Your task to perform on an android device: check storage Image 0: 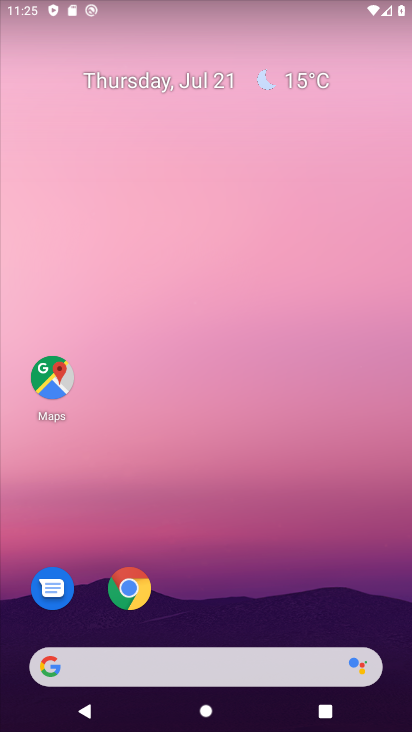
Step 0: drag from (264, 612) to (239, 173)
Your task to perform on an android device: check storage Image 1: 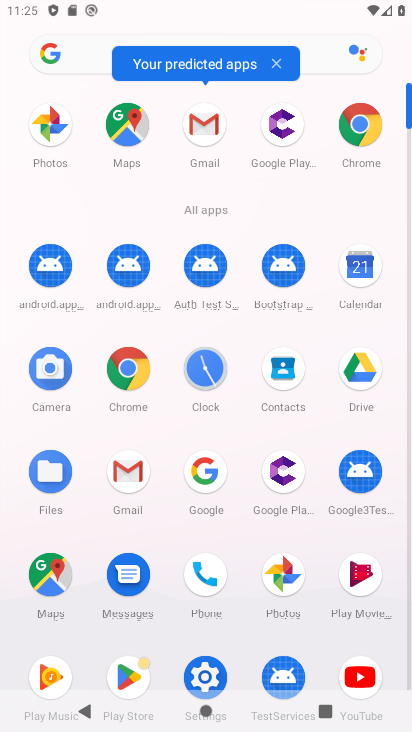
Step 1: click (200, 667)
Your task to perform on an android device: check storage Image 2: 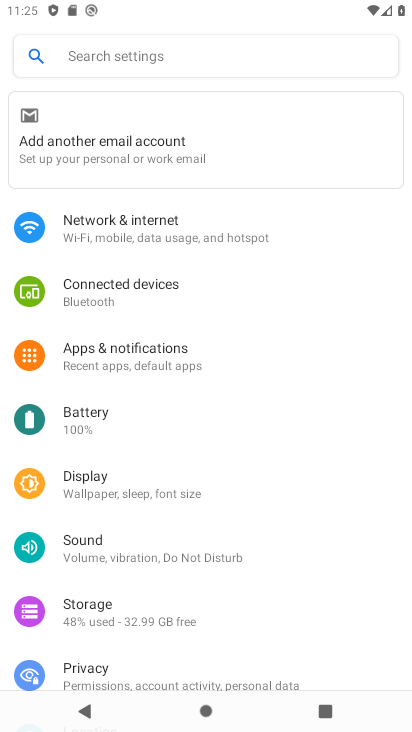
Step 2: click (158, 604)
Your task to perform on an android device: check storage Image 3: 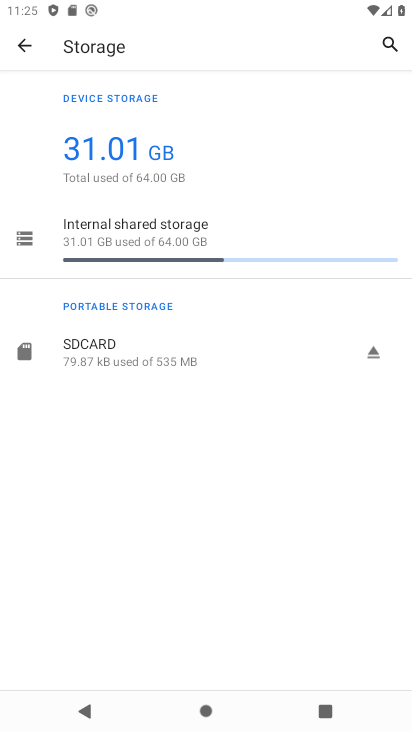
Step 3: task complete